Your task to perform on an android device: add a label to a message in the gmail app Image 0: 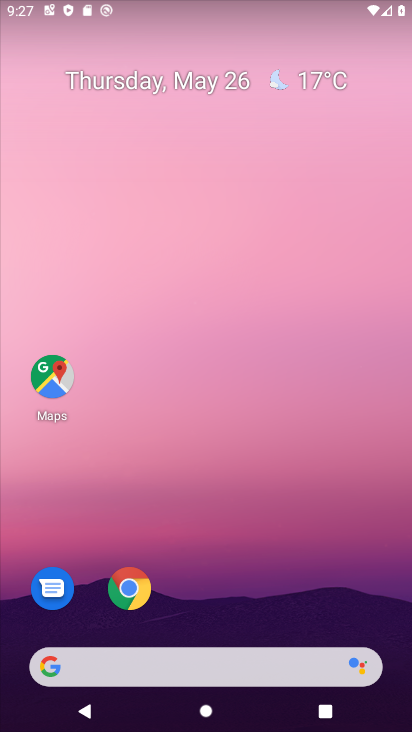
Step 0: drag from (365, 604) to (334, 89)
Your task to perform on an android device: add a label to a message in the gmail app Image 1: 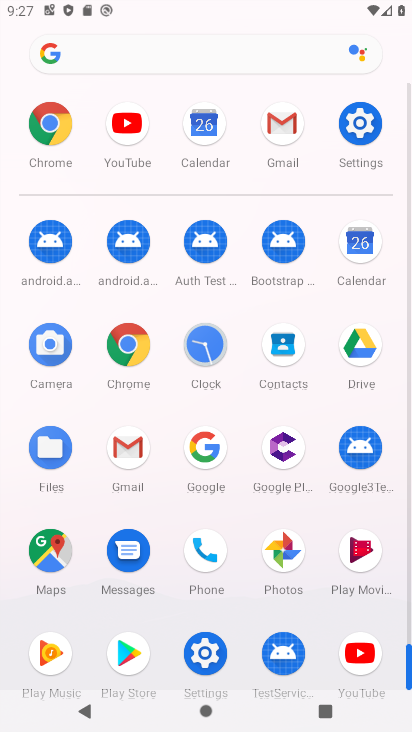
Step 1: click (129, 448)
Your task to perform on an android device: add a label to a message in the gmail app Image 2: 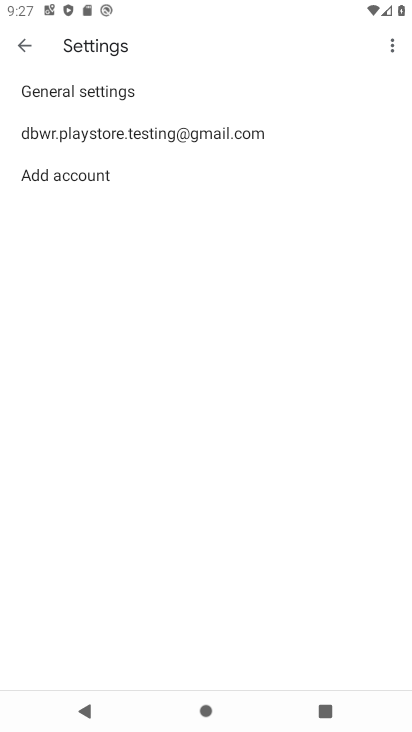
Step 2: press back button
Your task to perform on an android device: add a label to a message in the gmail app Image 3: 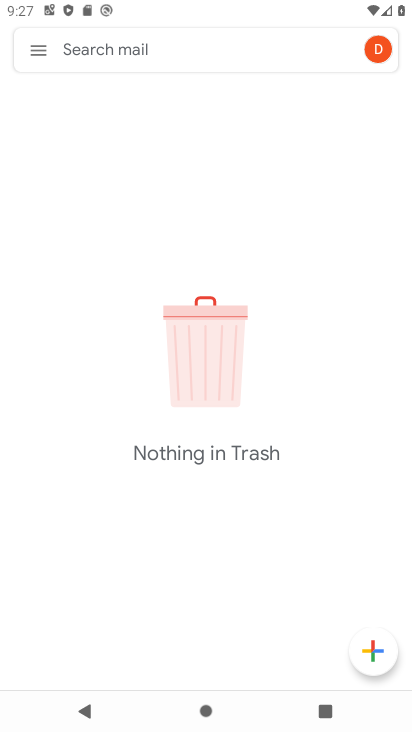
Step 3: click (35, 53)
Your task to perform on an android device: add a label to a message in the gmail app Image 4: 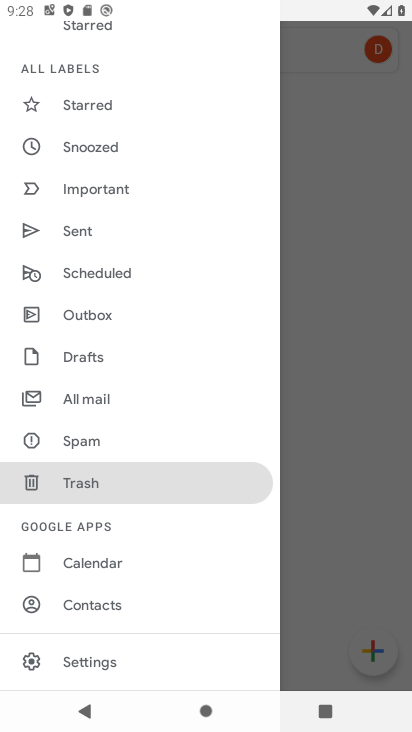
Step 4: click (94, 402)
Your task to perform on an android device: add a label to a message in the gmail app Image 5: 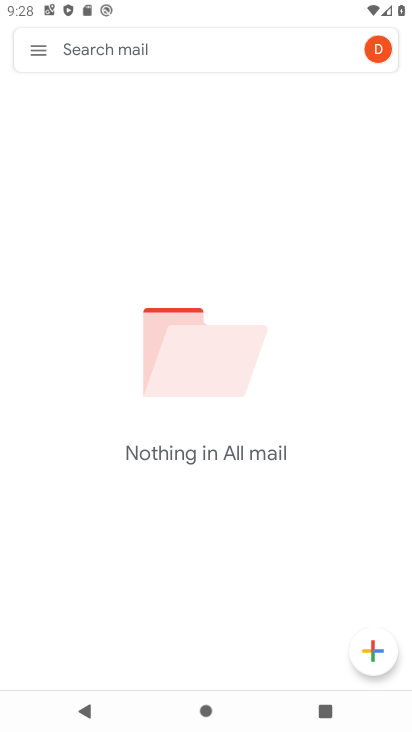
Step 5: task complete